Your task to perform on an android device: add a contact Image 0: 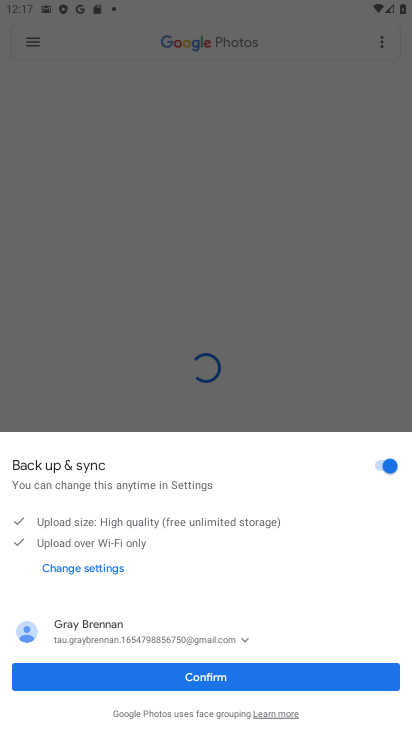
Step 0: press home button
Your task to perform on an android device: add a contact Image 1: 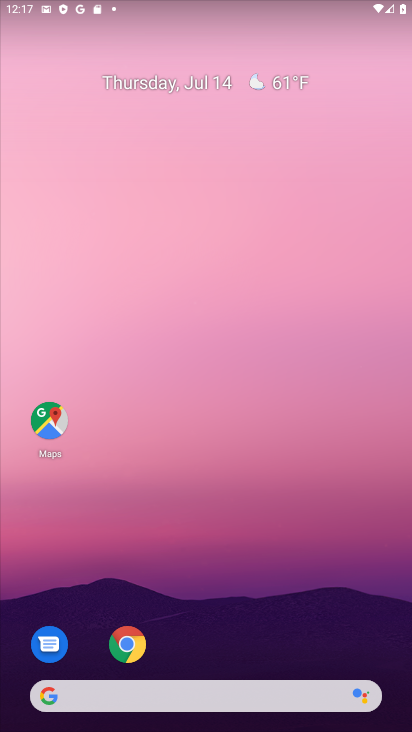
Step 1: drag from (238, 593) to (270, 48)
Your task to perform on an android device: add a contact Image 2: 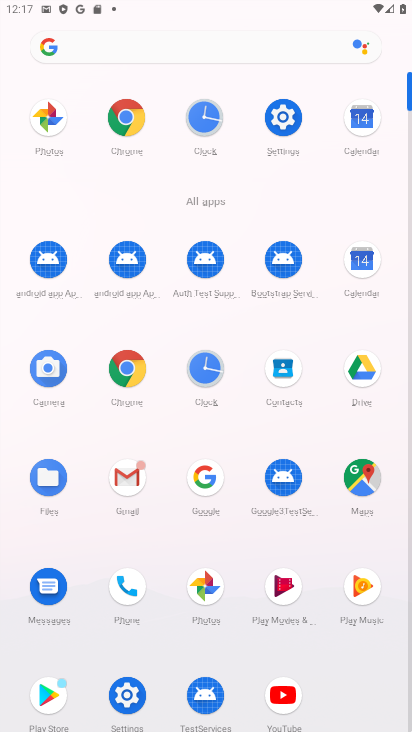
Step 2: click (273, 372)
Your task to perform on an android device: add a contact Image 3: 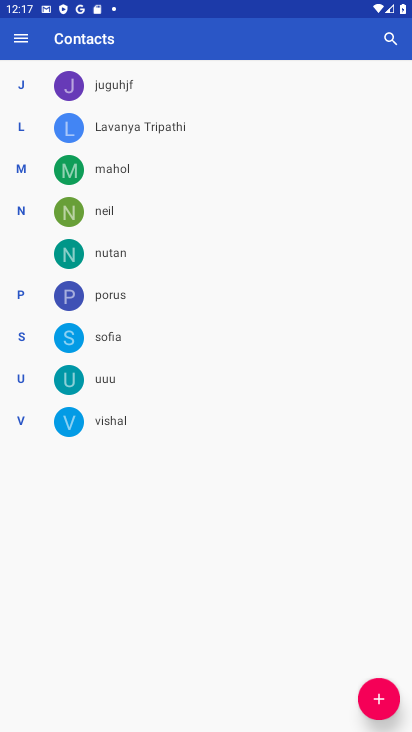
Step 3: click (378, 692)
Your task to perform on an android device: add a contact Image 4: 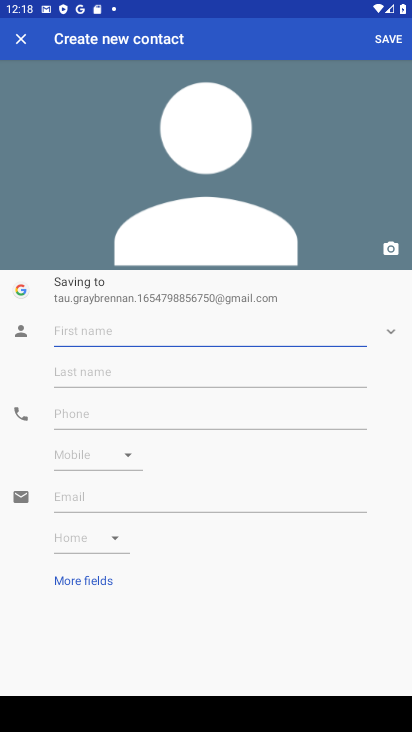
Step 4: type "nkj"
Your task to perform on an android device: add a contact Image 5: 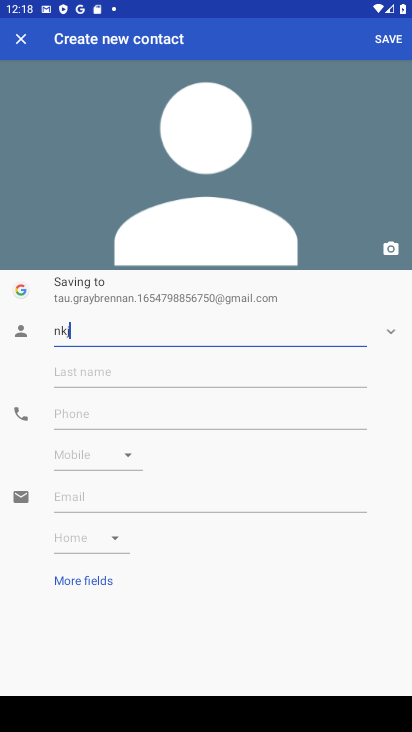
Step 5: click (200, 413)
Your task to perform on an android device: add a contact Image 6: 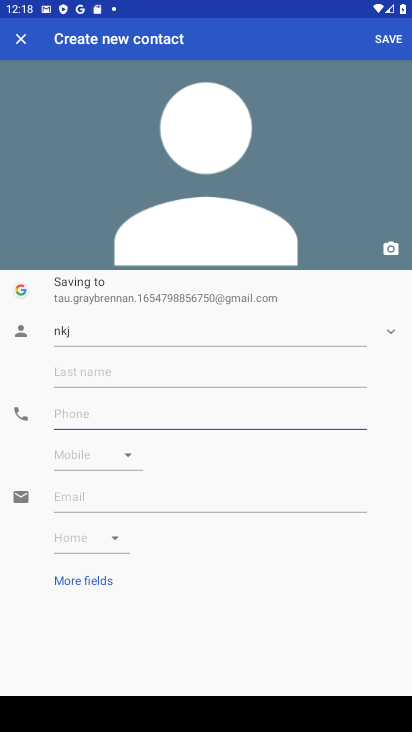
Step 6: type "2345678909"
Your task to perform on an android device: add a contact Image 7: 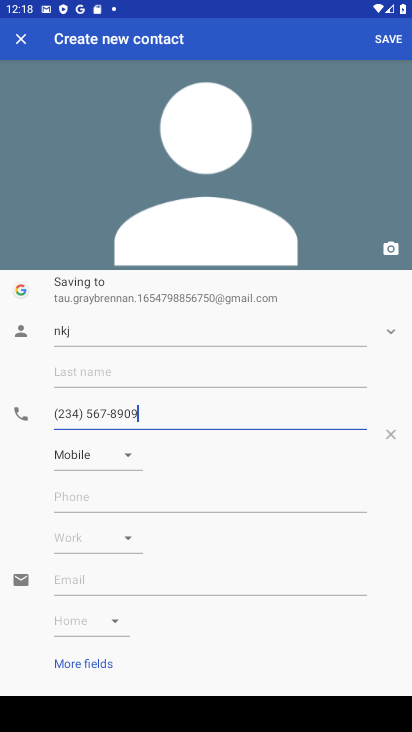
Step 7: click (389, 51)
Your task to perform on an android device: add a contact Image 8: 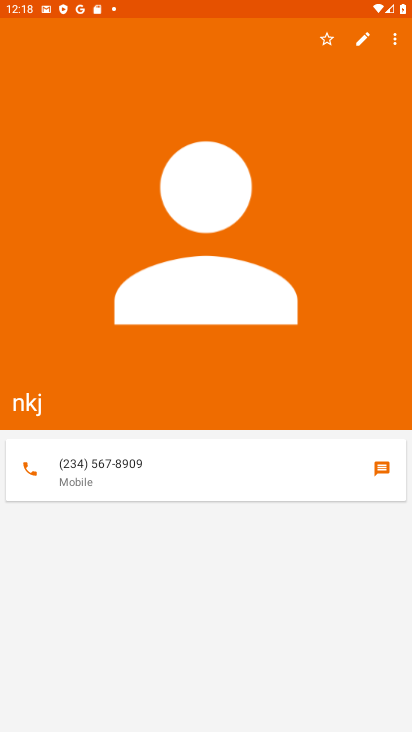
Step 8: task complete